Your task to perform on an android device: Open the calendar app, open the side menu, and click the "Day" option Image 0: 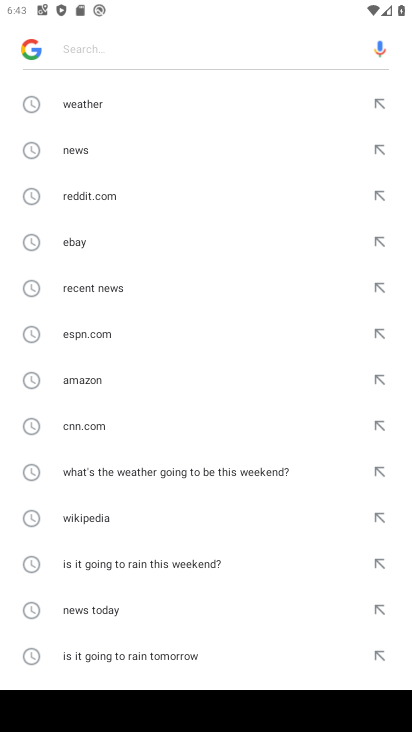
Step 0: press home button
Your task to perform on an android device: Open the calendar app, open the side menu, and click the "Day" option Image 1: 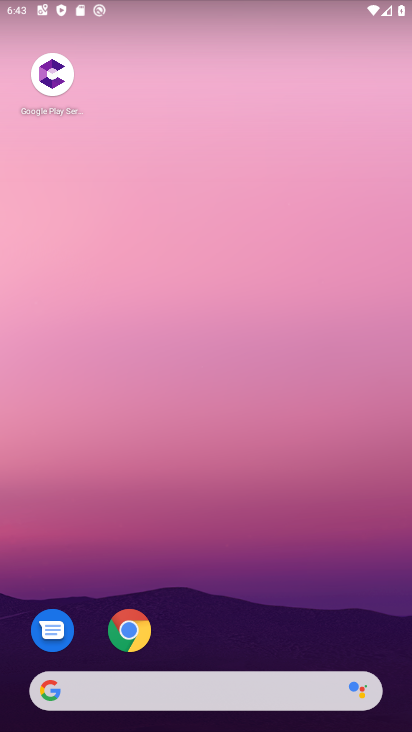
Step 1: drag from (82, 365) to (43, 185)
Your task to perform on an android device: Open the calendar app, open the side menu, and click the "Day" option Image 2: 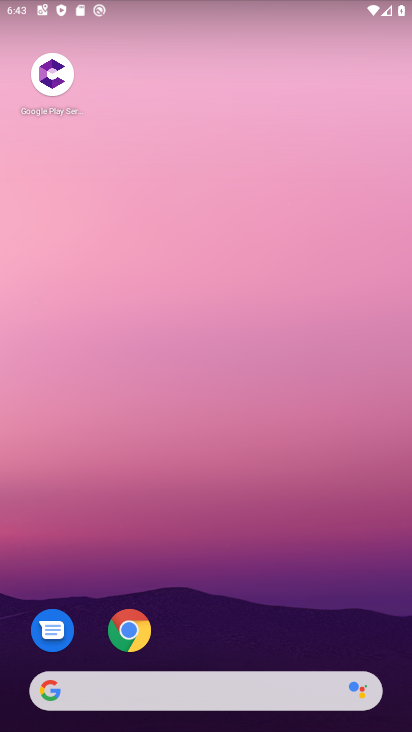
Step 2: drag from (290, 581) to (103, 131)
Your task to perform on an android device: Open the calendar app, open the side menu, and click the "Day" option Image 3: 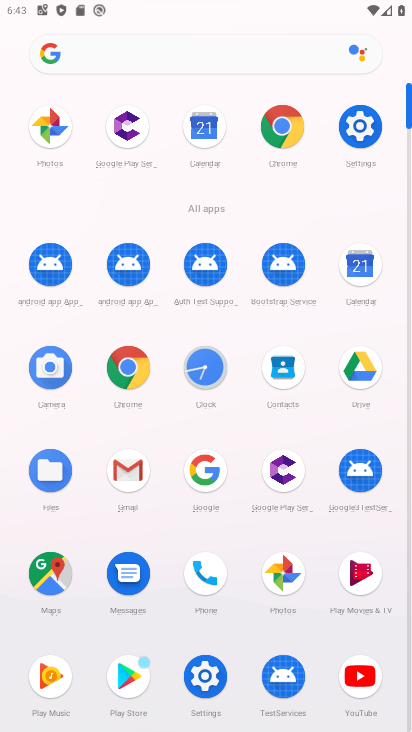
Step 3: click (349, 287)
Your task to perform on an android device: Open the calendar app, open the side menu, and click the "Day" option Image 4: 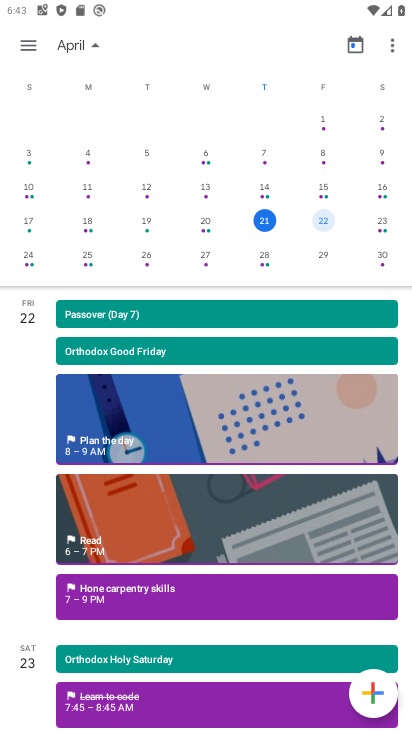
Step 4: click (29, 53)
Your task to perform on an android device: Open the calendar app, open the side menu, and click the "Day" option Image 5: 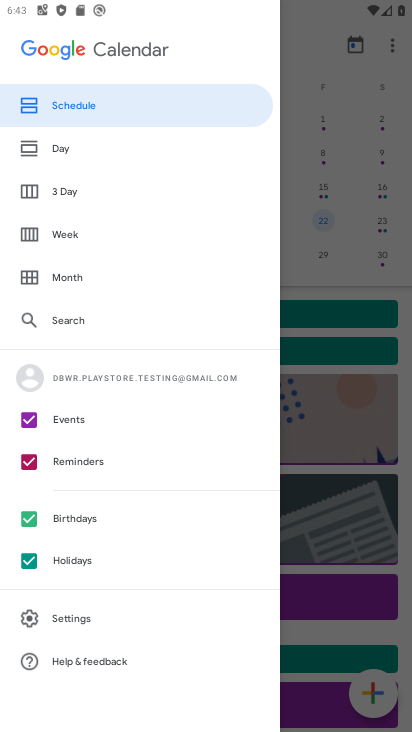
Step 5: click (93, 158)
Your task to perform on an android device: Open the calendar app, open the side menu, and click the "Day" option Image 6: 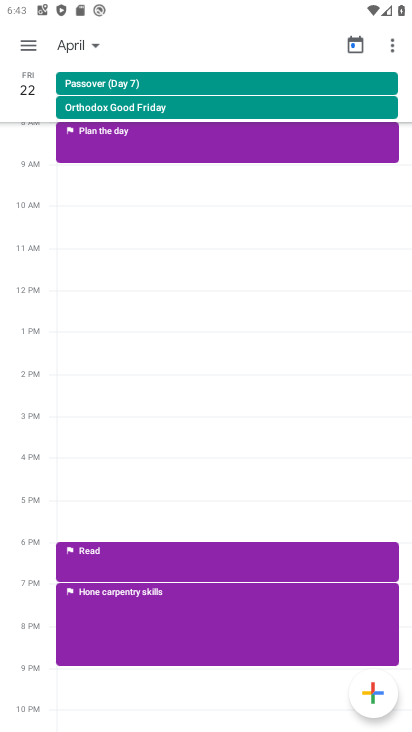
Step 6: task complete